Your task to perform on an android device: turn notification dots off Image 0: 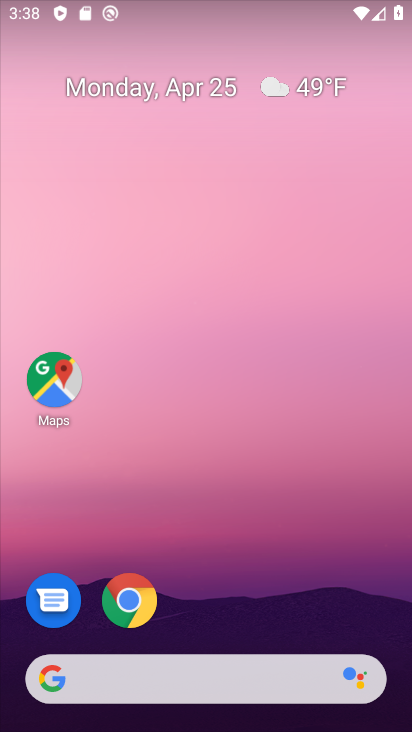
Step 0: drag from (237, 569) to (252, 32)
Your task to perform on an android device: turn notification dots off Image 1: 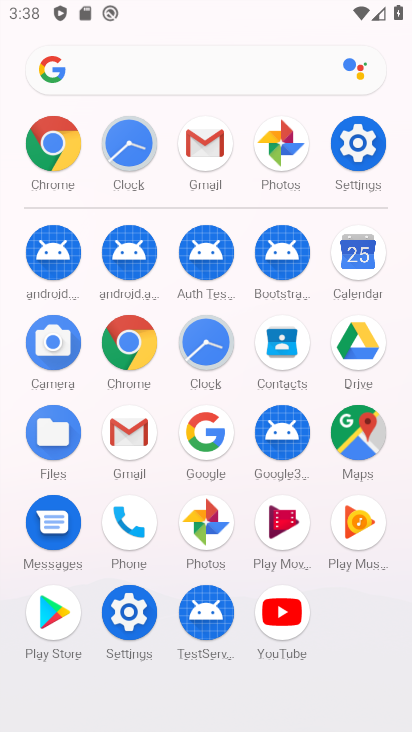
Step 1: click (353, 136)
Your task to perform on an android device: turn notification dots off Image 2: 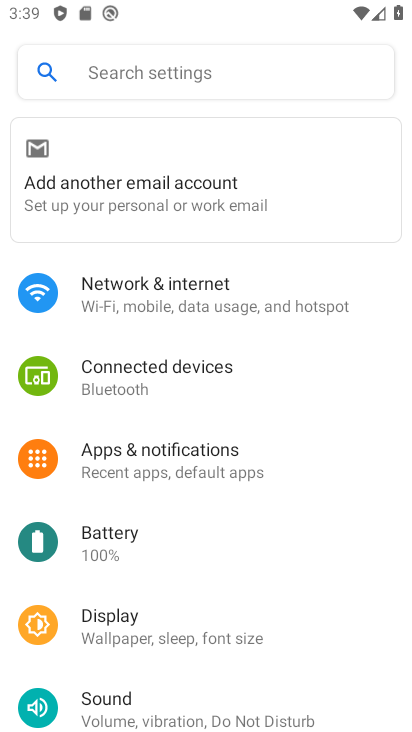
Step 2: click (218, 456)
Your task to perform on an android device: turn notification dots off Image 3: 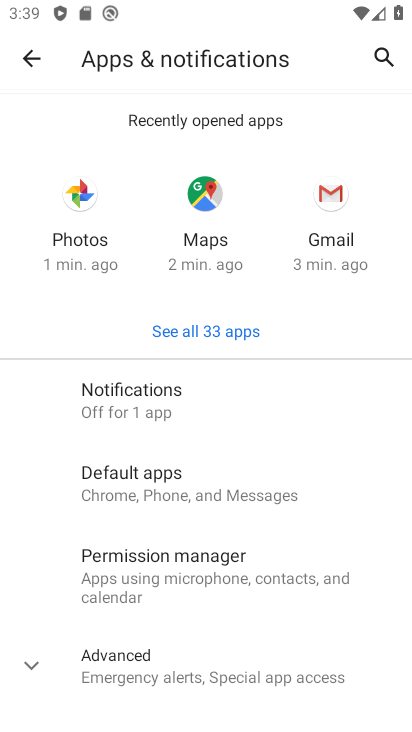
Step 3: click (223, 397)
Your task to perform on an android device: turn notification dots off Image 4: 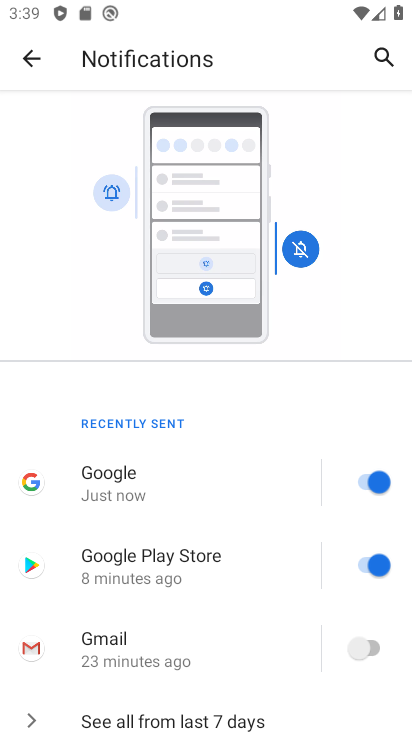
Step 4: drag from (225, 599) to (289, 152)
Your task to perform on an android device: turn notification dots off Image 5: 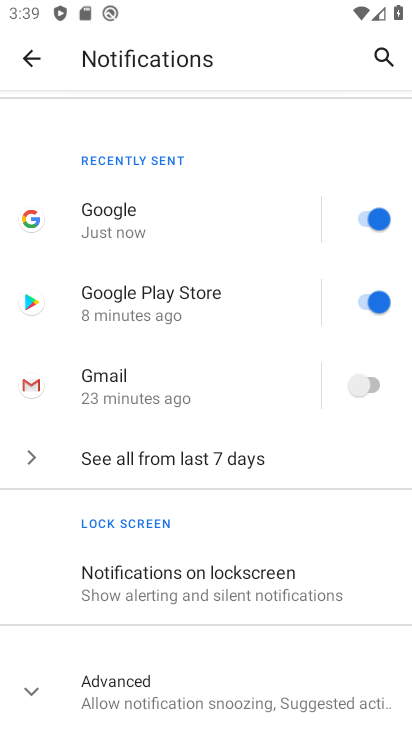
Step 5: click (31, 688)
Your task to perform on an android device: turn notification dots off Image 6: 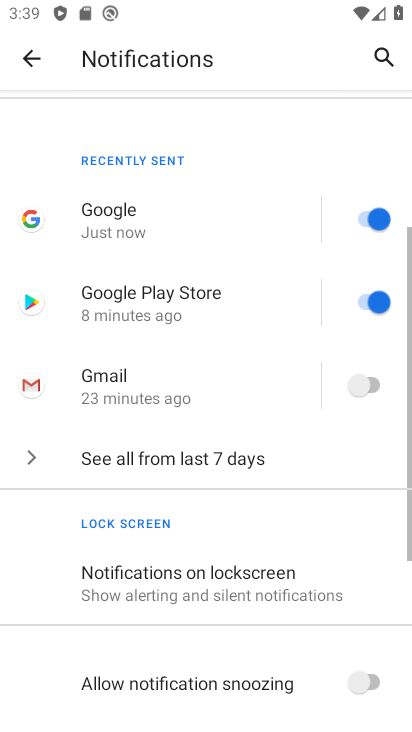
Step 6: task complete